Your task to perform on an android device: Open CNN.com Image 0: 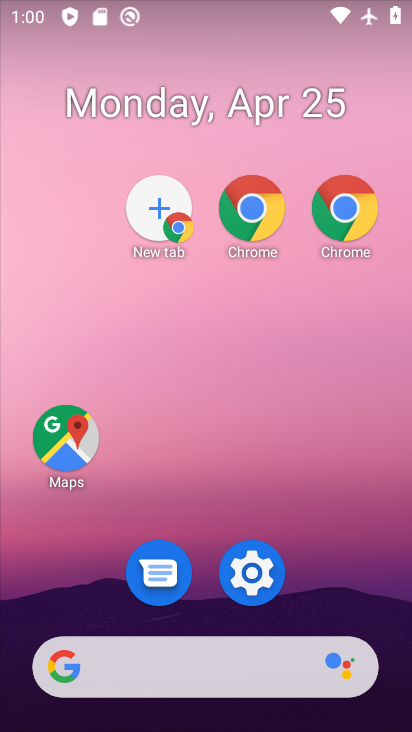
Step 0: click (143, 139)
Your task to perform on an android device: Open CNN.com Image 1: 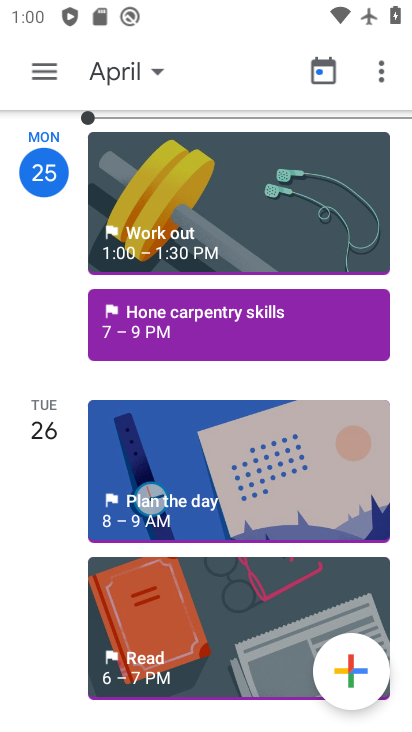
Step 1: press home button
Your task to perform on an android device: Open CNN.com Image 2: 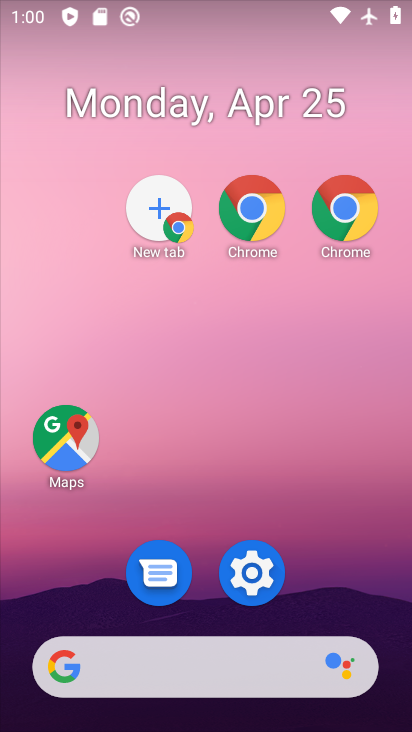
Step 2: drag from (331, 647) to (215, 113)
Your task to perform on an android device: Open CNN.com Image 3: 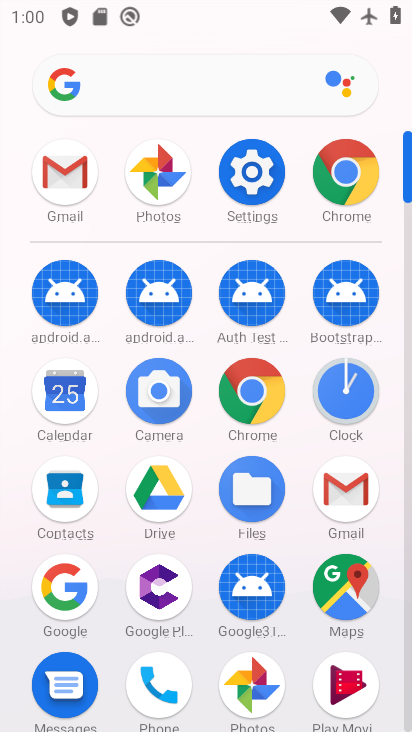
Step 3: click (247, 392)
Your task to perform on an android device: Open CNN.com Image 4: 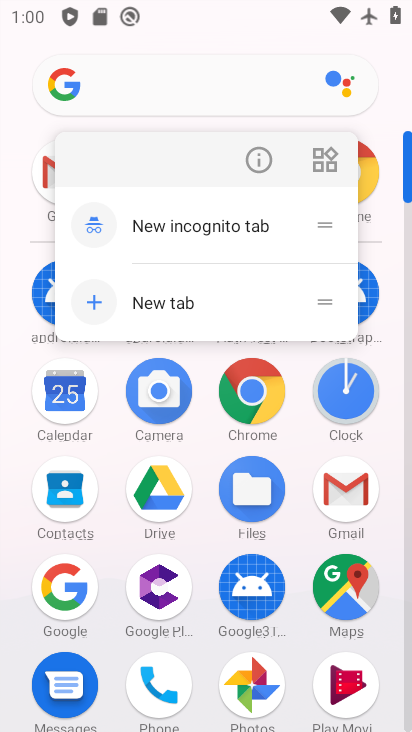
Step 4: click (244, 391)
Your task to perform on an android device: Open CNN.com Image 5: 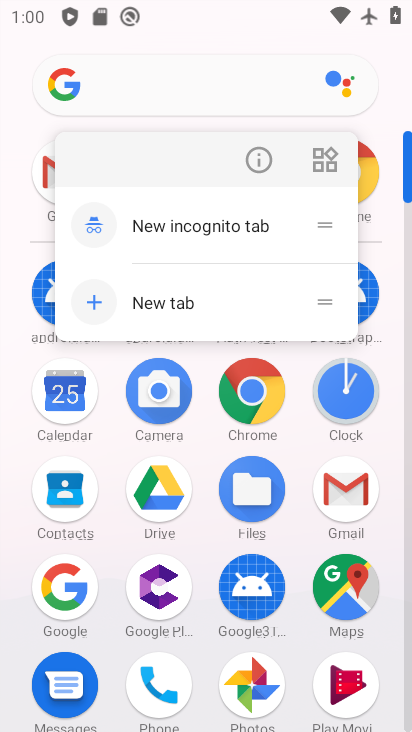
Step 5: click (251, 392)
Your task to perform on an android device: Open CNN.com Image 6: 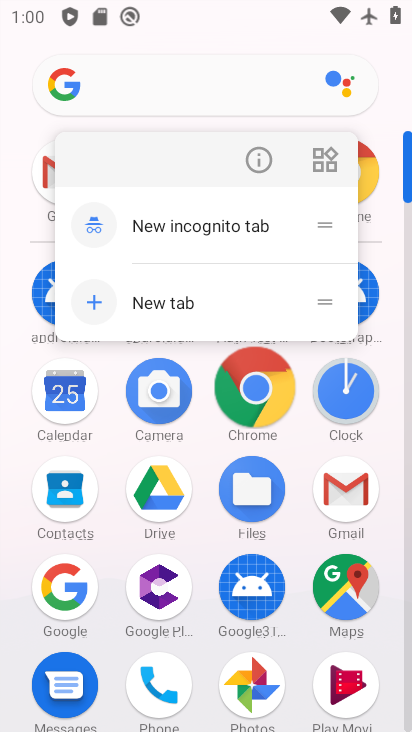
Step 6: click (254, 388)
Your task to perform on an android device: Open CNN.com Image 7: 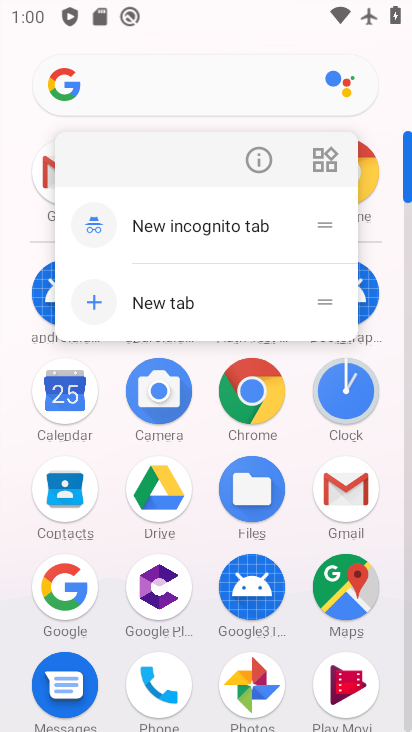
Step 7: click (163, 301)
Your task to perform on an android device: Open CNN.com Image 8: 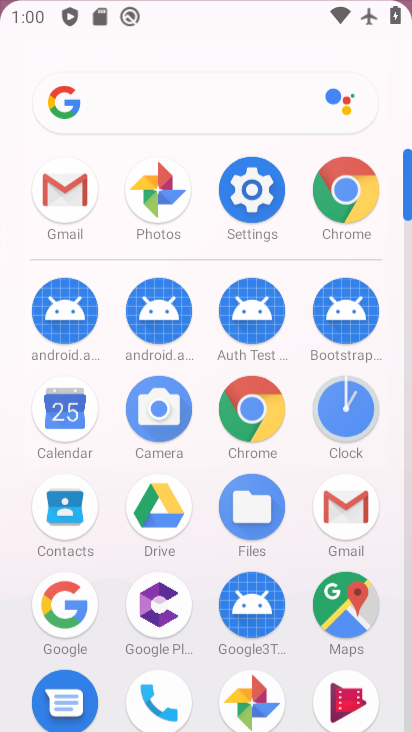
Step 8: click (176, 302)
Your task to perform on an android device: Open CNN.com Image 9: 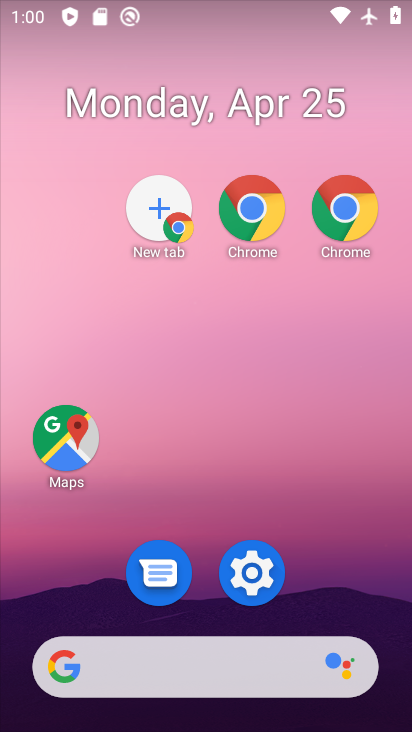
Step 9: click (244, 213)
Your task to perform on an android device: Open CNN.com Image 10: 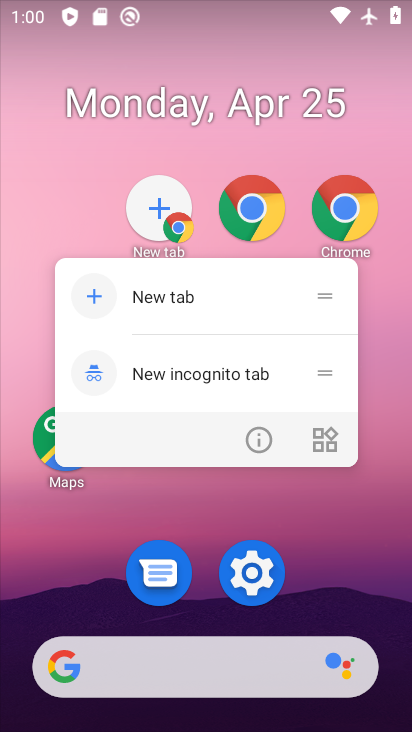
Step 10: click (157, 294)
Your task to perform on an android device: Open CNN.com Image 11: 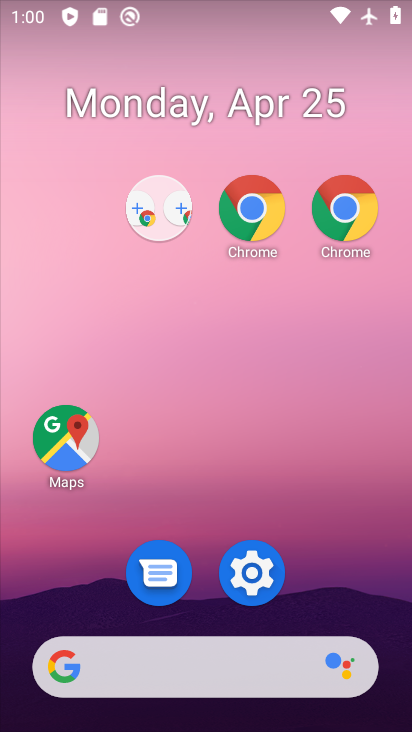
Step 11: click (253, 200)
Your task to perform on an android device: Open CNN.com Image 12: 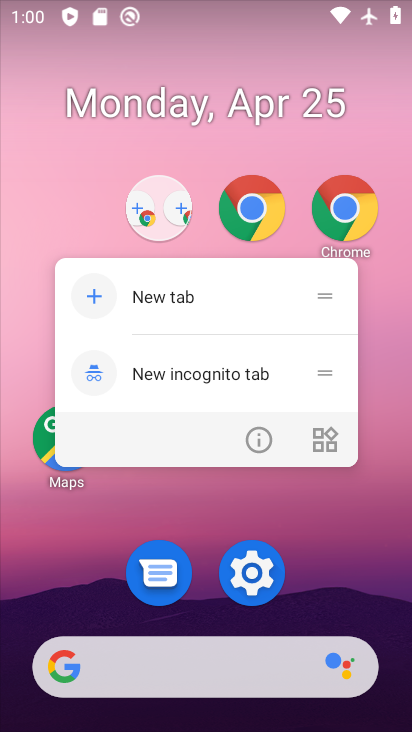
Step 12: click (163, 296)
Your task to perform on an android device: Open CNN.com Image 13: 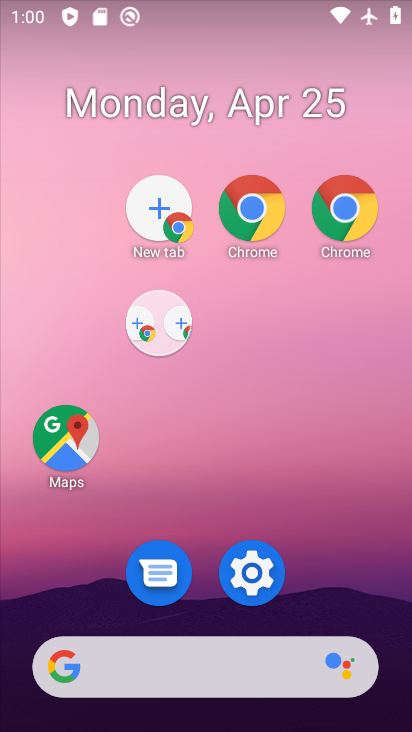
Step 13: click (240, 215)
Your task to perform on an android device: Open CNN.com Image 14: 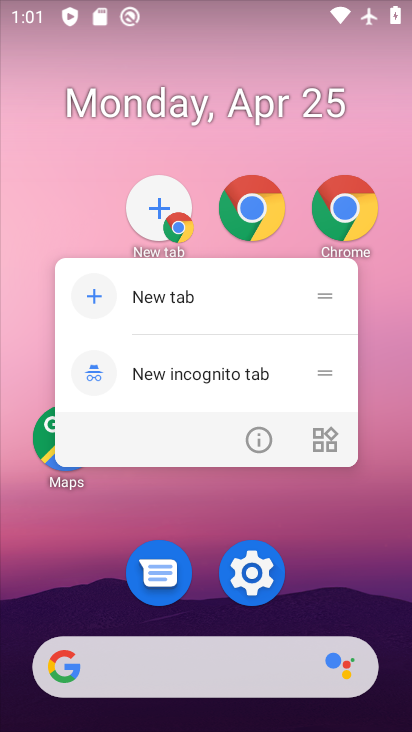
Step 14: click (165, 293)
Your task to perform on an android device: Open CNN.com Image 15: 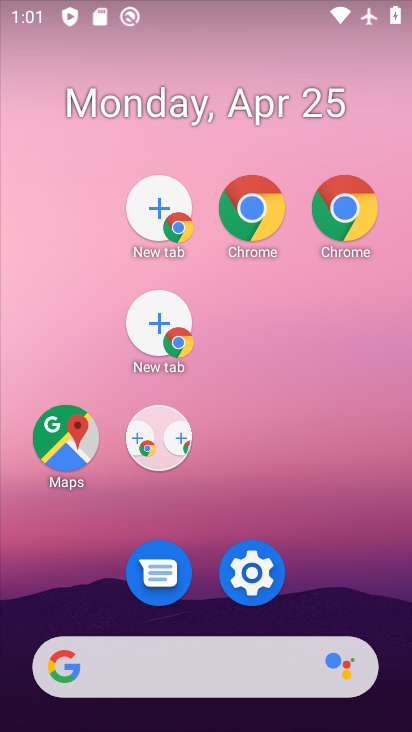
Step 15: click (236, 239)
Your task to perform on an android device: Open CNN.com Image 16: 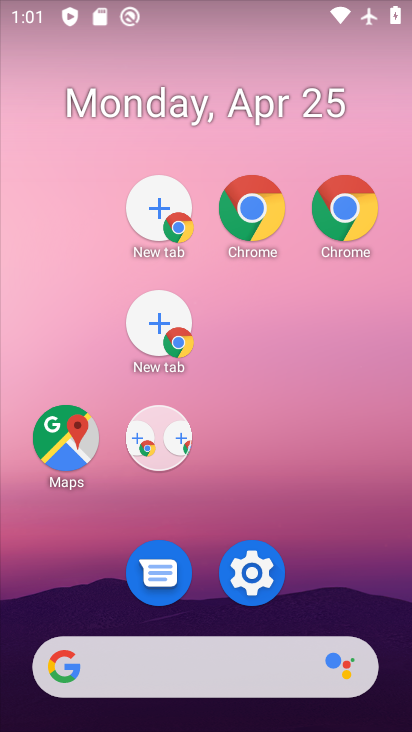
Step 16: click (236, 239)
Your task to perform on an android device: Open CNN.com Image 17: 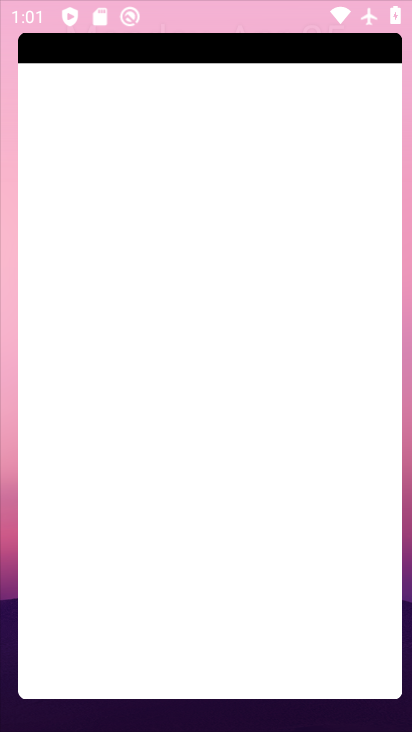
Step 17: click (250, 212)
Your task to perform on an android device: Open CNN.com Image 18: 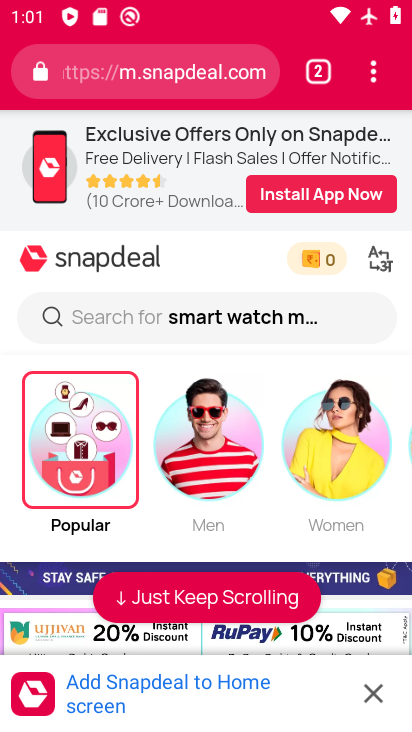
Step 18: drag from (369, 71) to (112, 143)
Your task to perform on an android device: Open CNN.com Image 19: 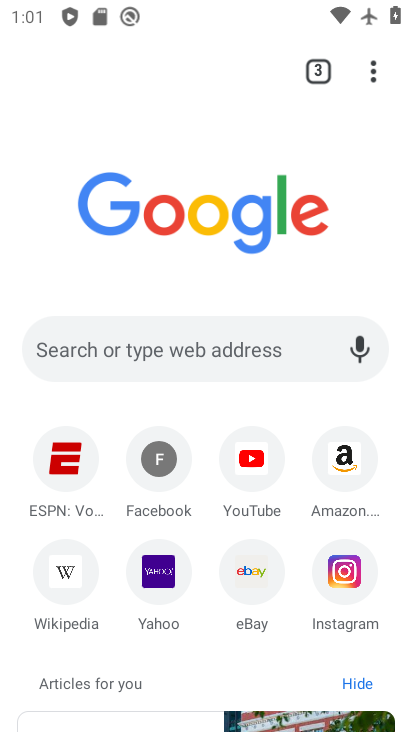
Step 19: click (101, 354)
Your task to perform on an android device: Open CNN.com Image 20: 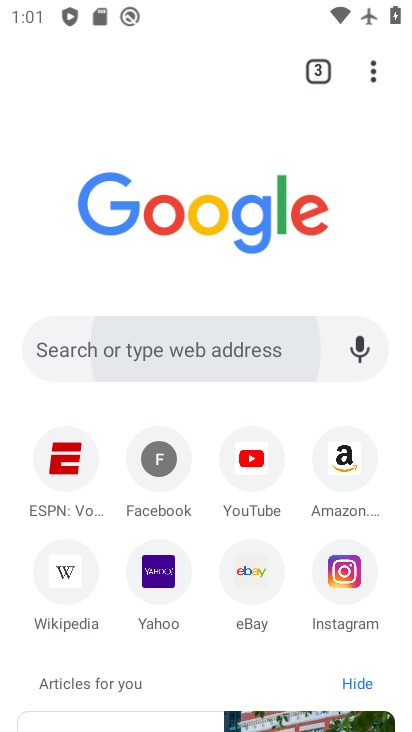
Step 20: click (101, 354)
Your task to perform on an android device: Open CNN.com Image 21: 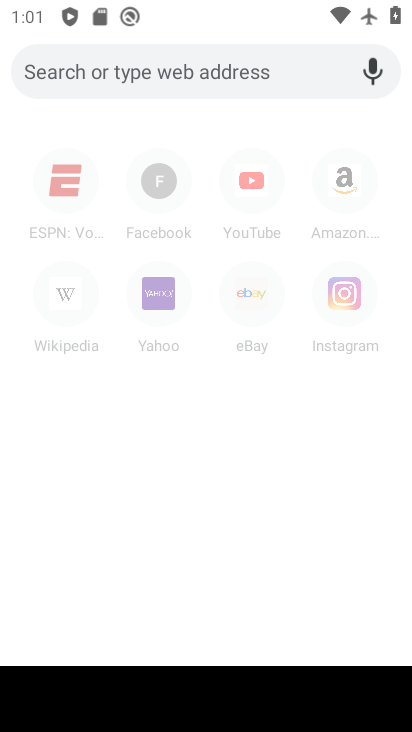
Step 21: type "www.cnn.com"
Your task to perform on an android device: Open CNN.com Image 22: 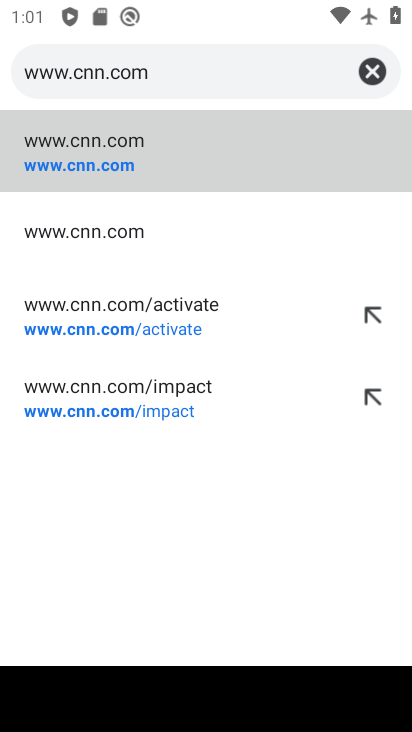
Step 22: click (92, 169)
Your task to perform on an android device: Open CNN.com Image 23: 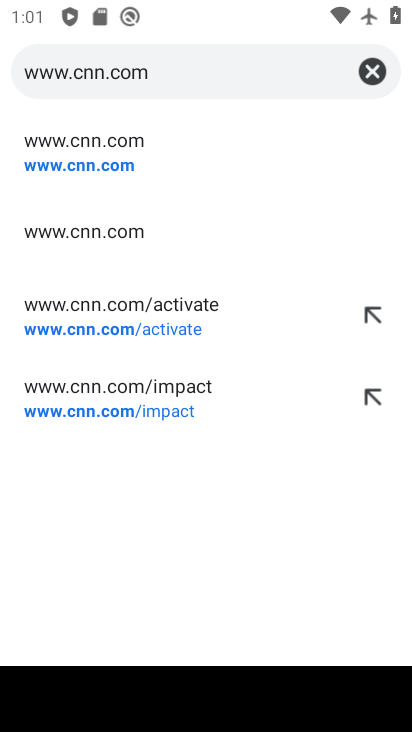
Step 23: click (92, 169)
Your task to perform on an android device: Open CNN.com Image 24: 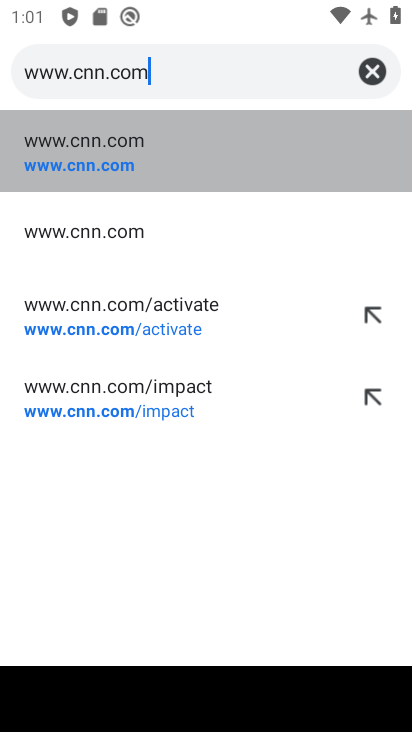
Step 24: click (92, 169)
Your task to perform on an android device: Open CNN.com Image 25: 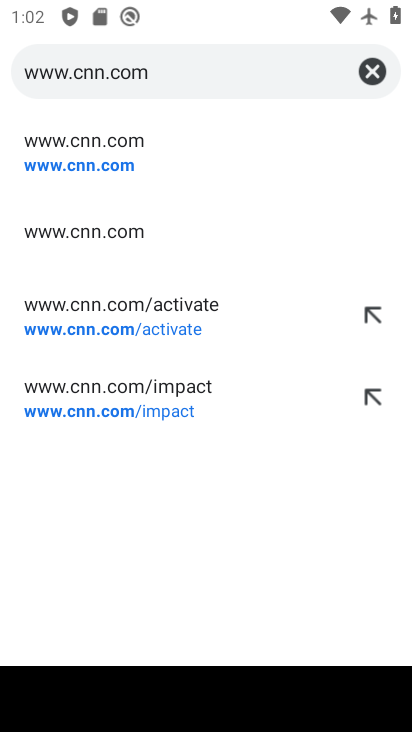
Step 25: click (79, 159)
Your task to perform on an android device: Open CNN.com Image 26: 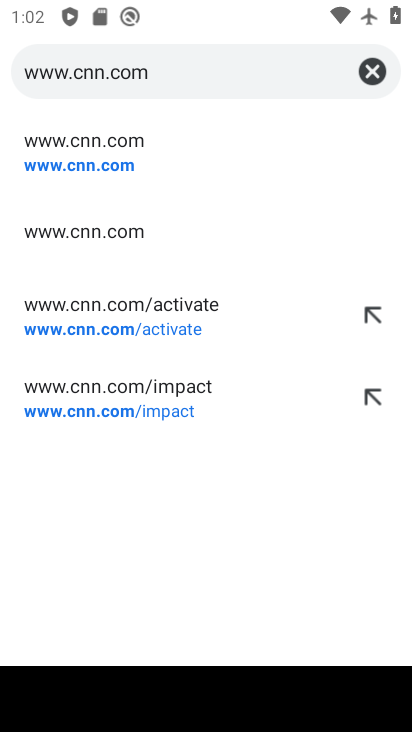
Step 26: click (80, 158)
Your task to perform on an android device: Open CNN.com Image 27: 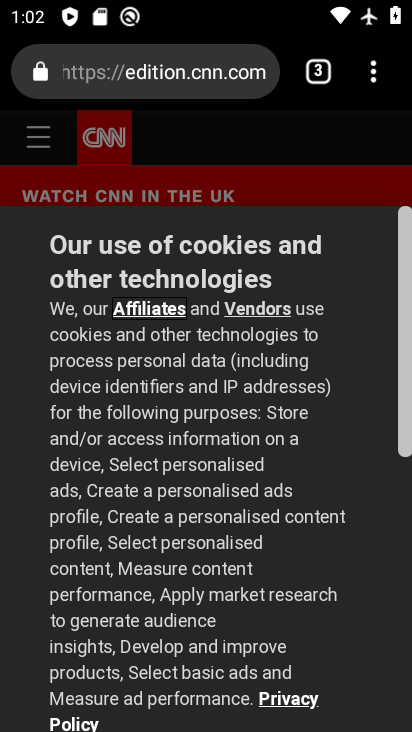
Step 27: task complete